Your task to perform on an android device: open chrome privacy settings Image 0: 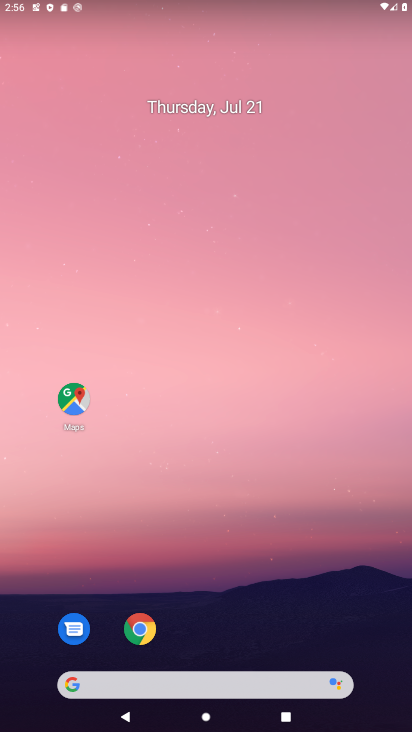
Step 0: click (142, 619)
Your task to perform on an android device: open chrome privacy settings Image 1: 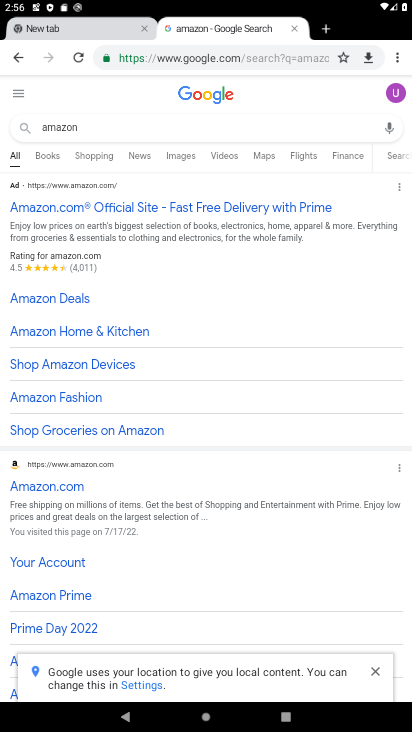
Step 1: click (396, 61)
Your task to perform on an android device: open chrome privacy settings Image 2: 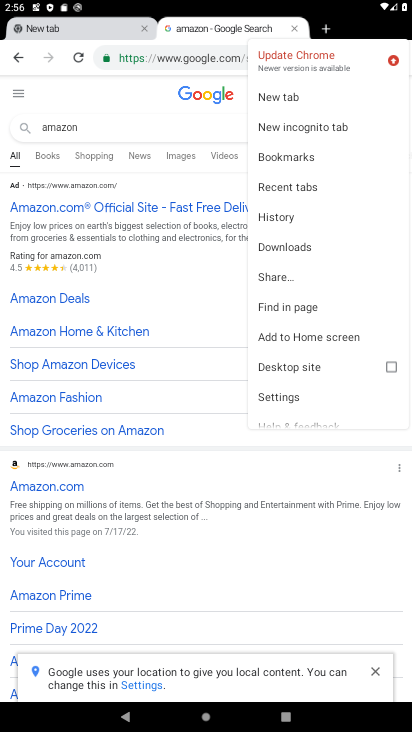
Step 2: click (298, 382)
Your task to perform on an android device: open chrome privacy settings Image 3: 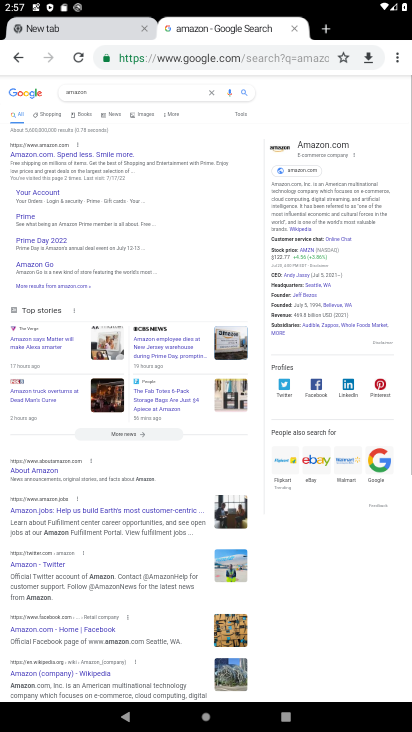
Step 3: click (396, 56)
Your task to perform on an android device: open chrome privacy settings Image 4: 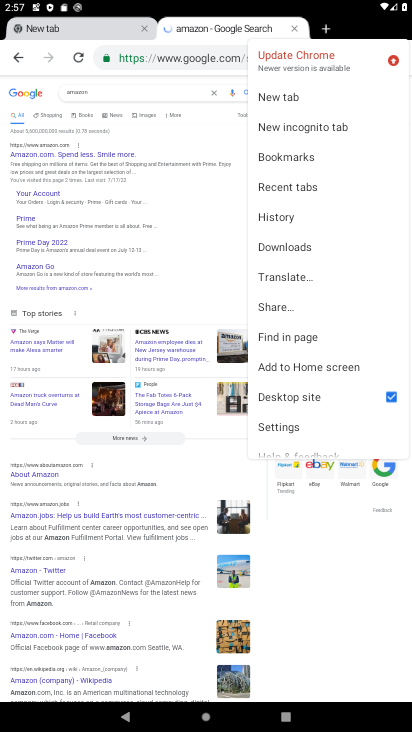
Step 4: click (277, 418)
Your task to perform on an android device: open chrome privacy settings Image 5: 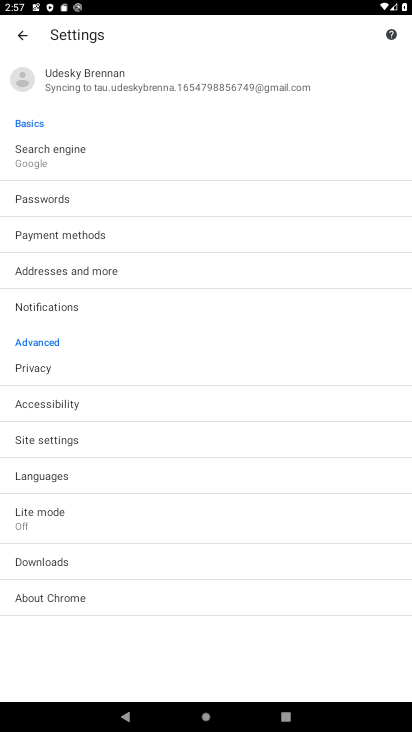
Step 5: click (27, 370)
Your task to perform on an android device: open chrome privacy settings Image 6: 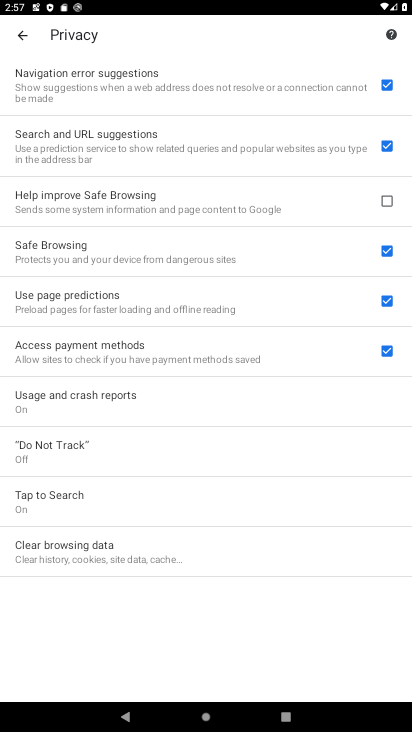
Step 6: task complete